Your task to perform on an android device: Check the weather Image 0: 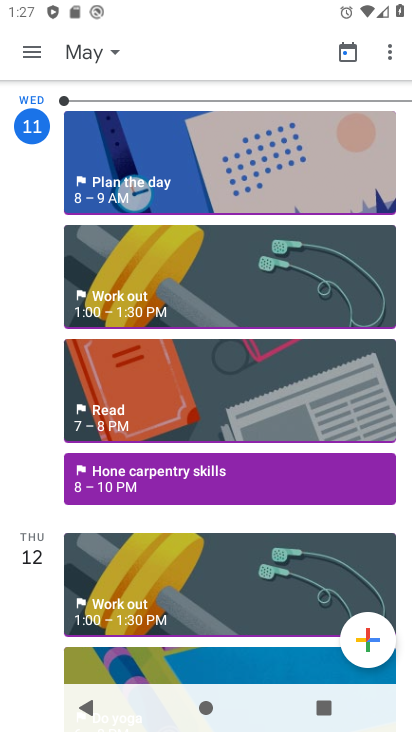
Step 0: press home button
Your task to perform on an android device: Check the weather Image 1: 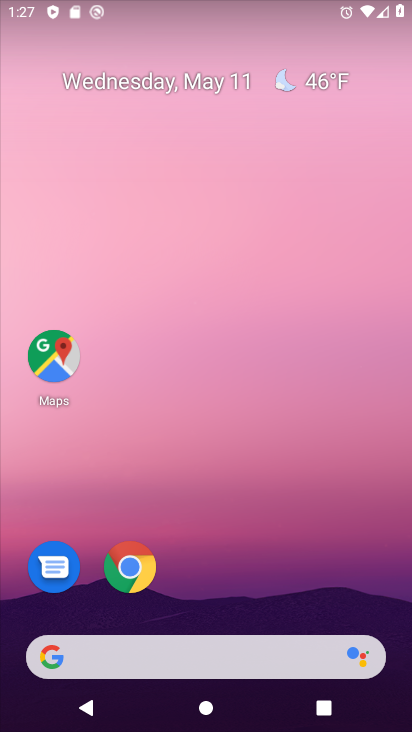
Step 1: drag from (216, 633) to (152, 36)
Your task to perform on an android device: Check the weather Image 2: 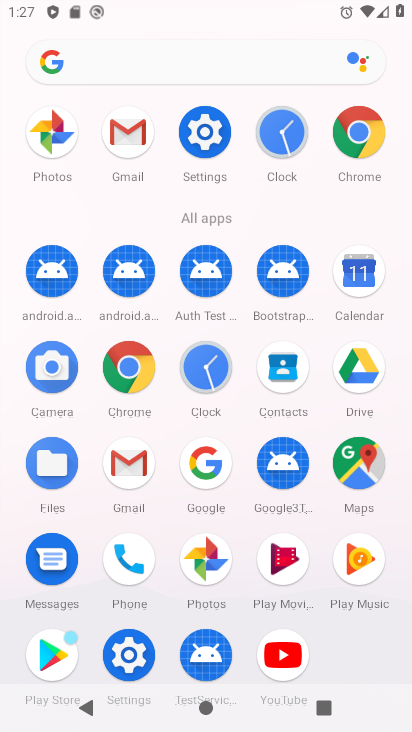
Step 2: click (197, 462)
Your task to perform on an android device: Check the weather Image 3: 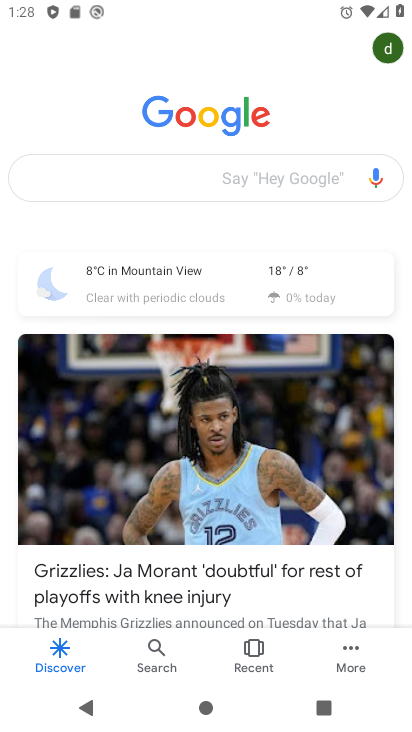
Step 3: click (291, 275)
Your task to perform on an android device: Check the weather Image 4: 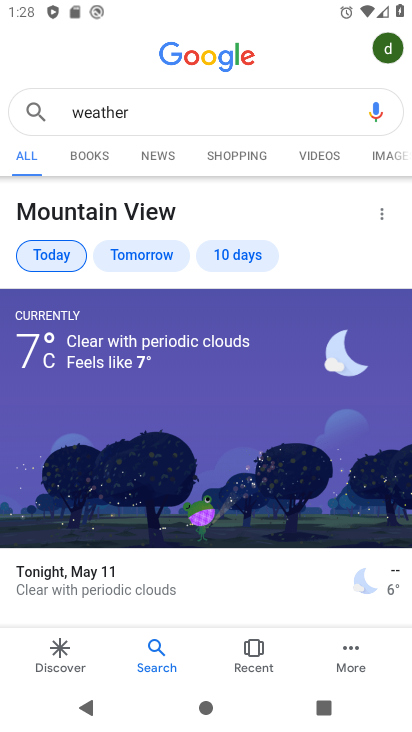
Step 4: task complete